Your task to perform on an android device: Open calendar and show me the second week of next month Image 0: 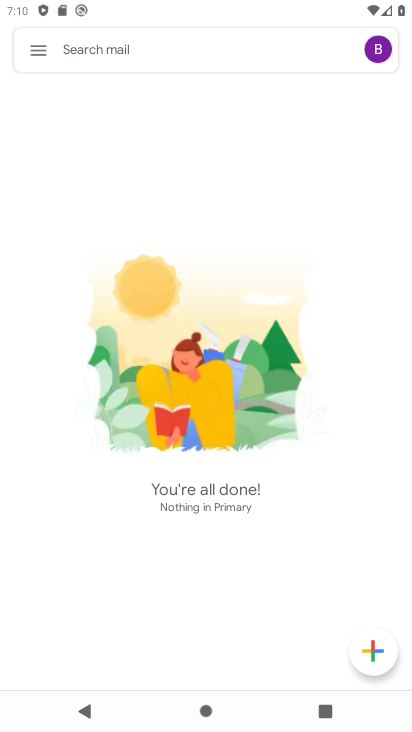
Step 0: press home button
Your task to perform on an android device: Open calendar and show me the second week of next month Image 1: 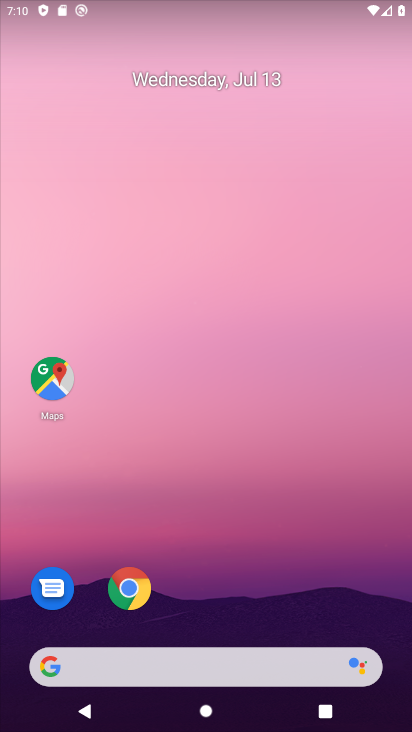
Step 1: drag from (237, 570) to (180, 4)
Your task to perform on an android device: Open calendar and show me the second week of next month Image 2: 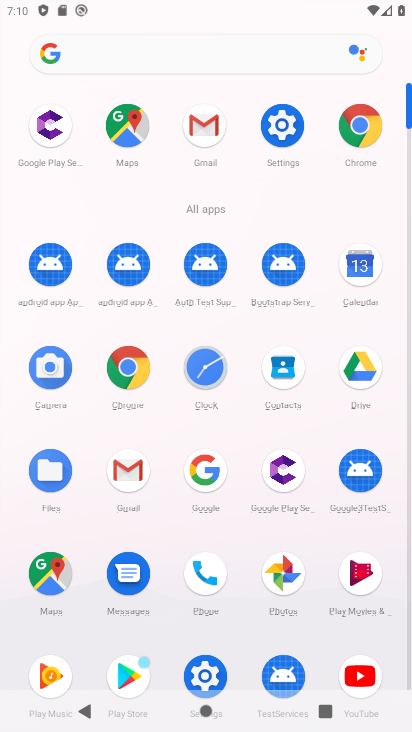
Step 2: click (361, 266)
Your task to perform on an android device: Open calendar and show me the second week of next month Image 3: 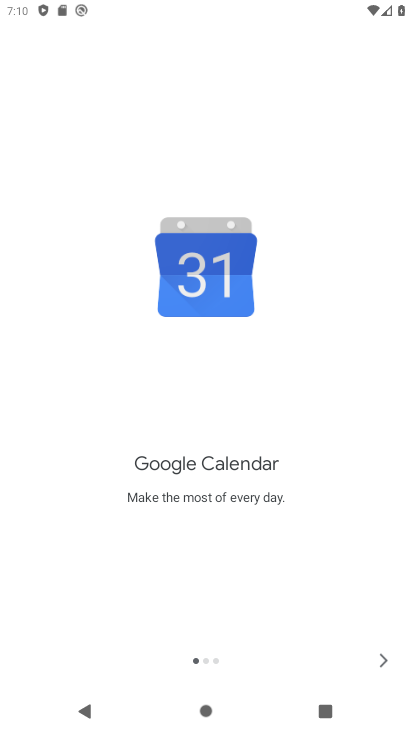
Step 3: click (383, 659)
Your task to perform on an android device: Open calendar and show me the second week of next month Image 4: 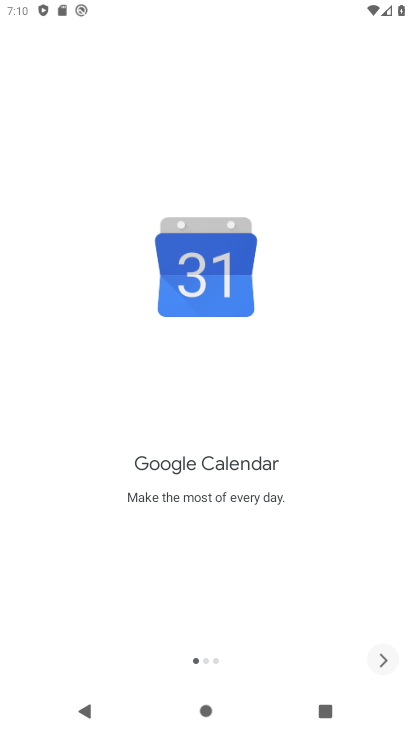
Step 4: click (383, 659)
Your task to perform on an android device: Open calendar and show me the second week of next month Image 5: 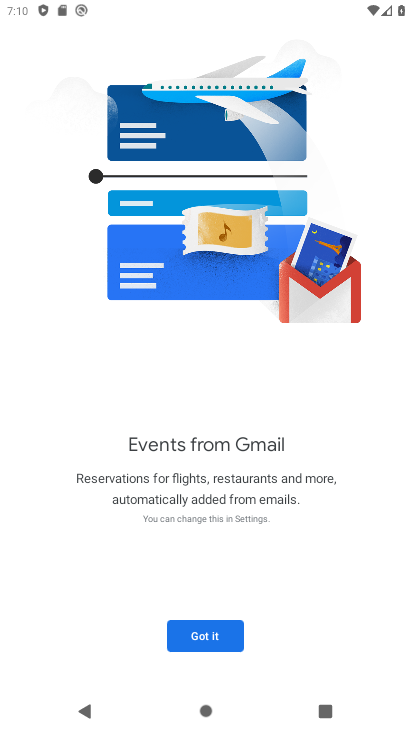
Step 5: click (209, 635)
Your task to perform on an android device: Open calendar and show me the second week of next month Image 6: 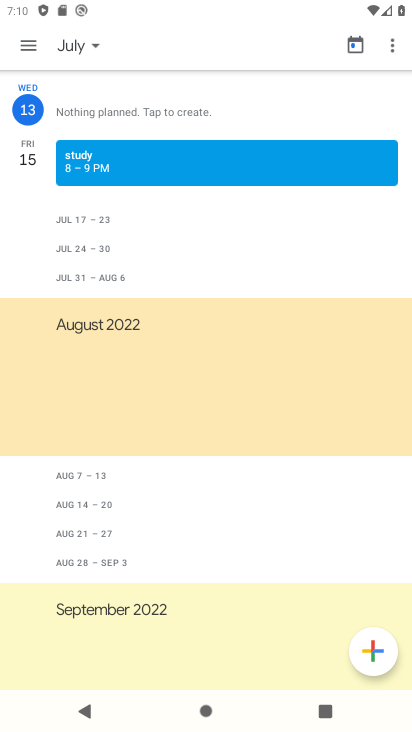
Step 6: click (26, 43)
Your task to perform on an android device: Open calendar and show me the second week of next month Image 7: 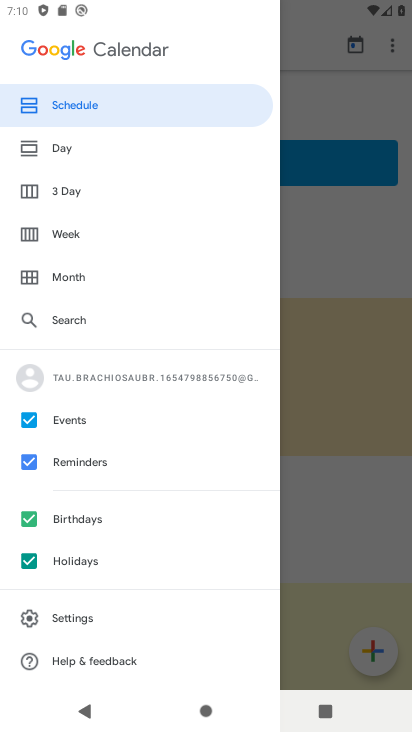
Step 7: click (65, 233)
Your task to perform on an android device: Open calendar and show me the second week of next month Image 8: 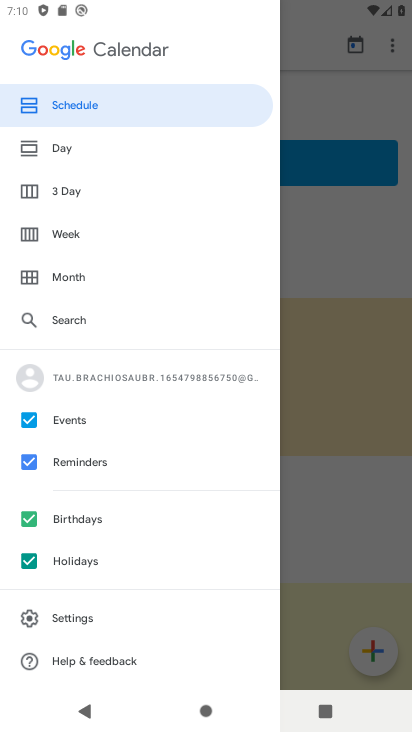
Step 8: click (52, 225)
Your task to perform on an android device: Open calendar and show me the second week of next month Image 9: 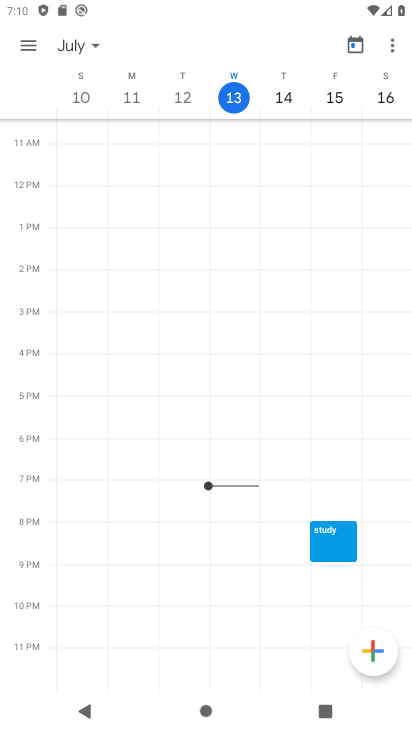
Step 9: click (93, 42)
Your task to perform on an android device: Open calendar and show me the second week of next month Image 10: 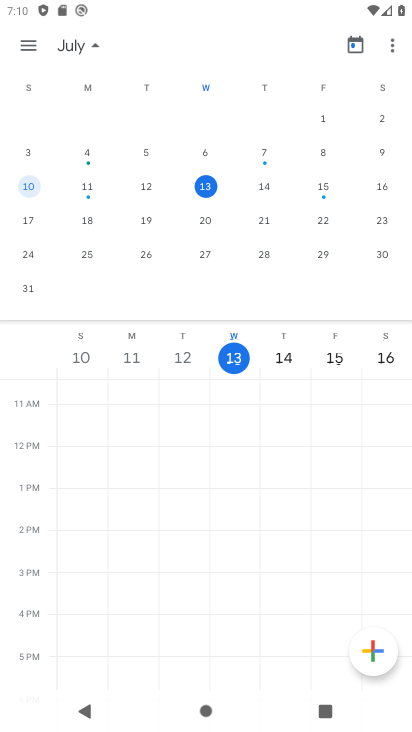
Step 10: drag from (383, 170) to (4, 176)
Your task to perform on an android device: Open calendar and show me the second week of next month Image 11: 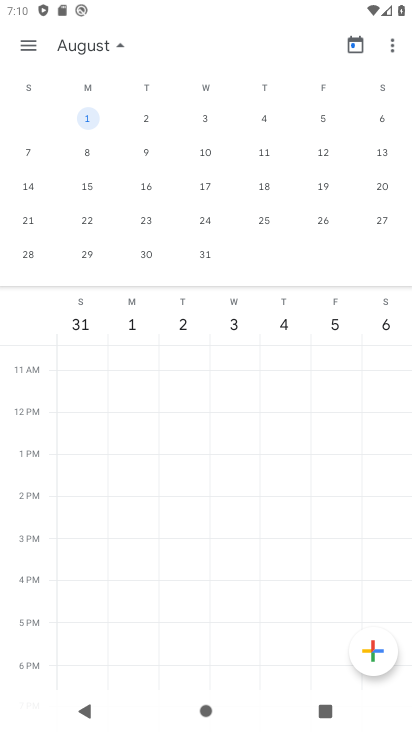
Step 11: click (143, 146)
Your task to perform on an android device: Open calendar and show me the second week of next month Image 12: 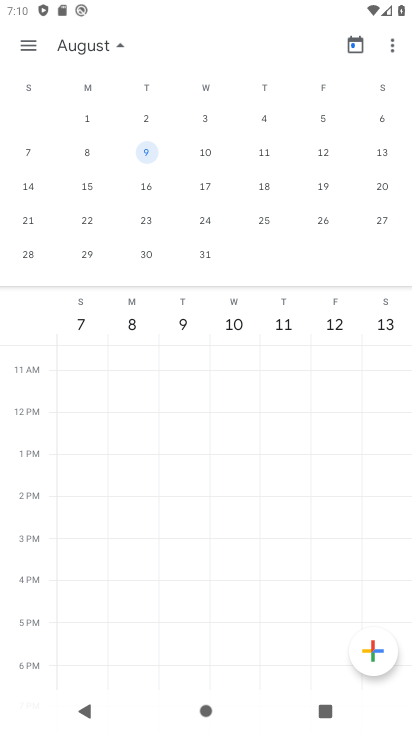
Step 12: task complete